Your task to perform on an android device: Open Google Chrome Image 0: 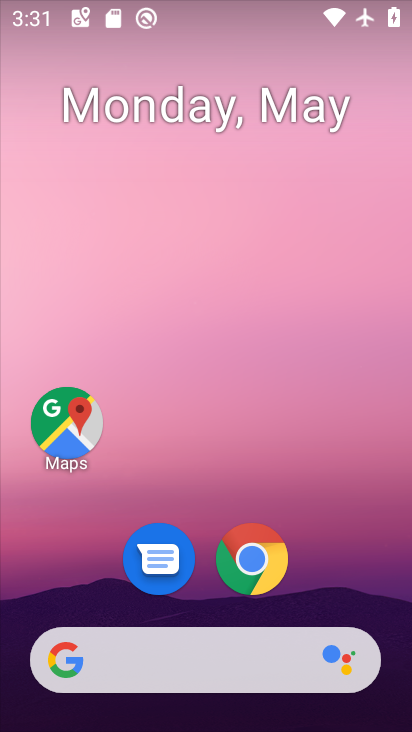
Step 0: click (242, 563)
Your task to perform on an android device: Open Google Chrome Image 1: 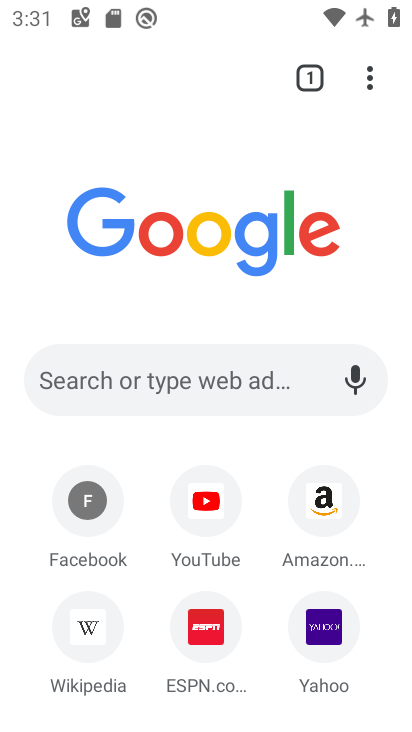
Step 1: task complete